Your task to perform on an android device: set the timer Image 0: 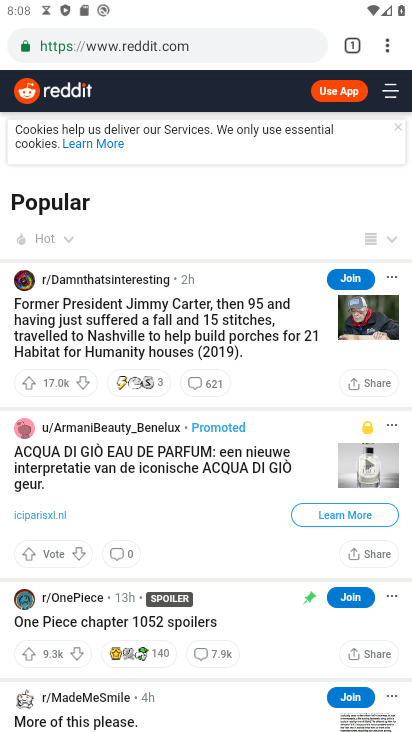
Step 0: press back button
Your task to perform on an android device: set the timer Image 1: 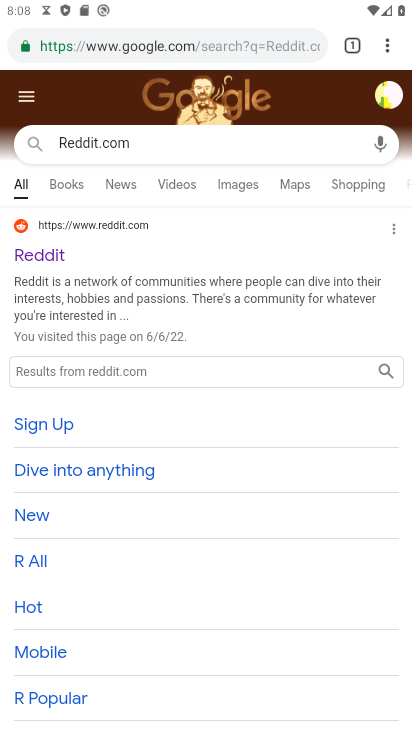
Step 1: press back button
Your task to perform on an android device: set the timer Image 2: 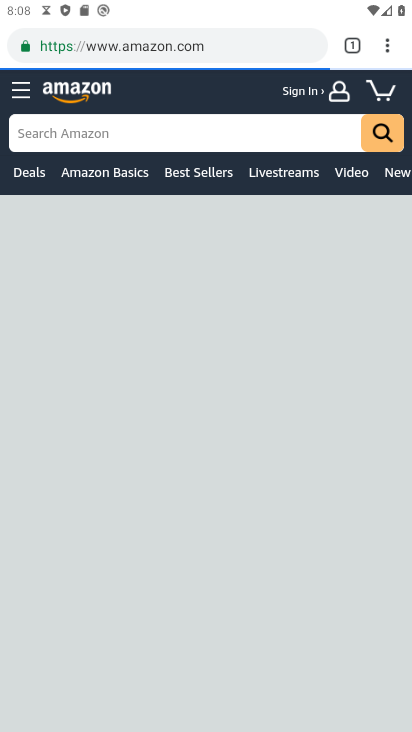
Step 2: press back button
Your task to perform on an android device: set the timer Image 3: 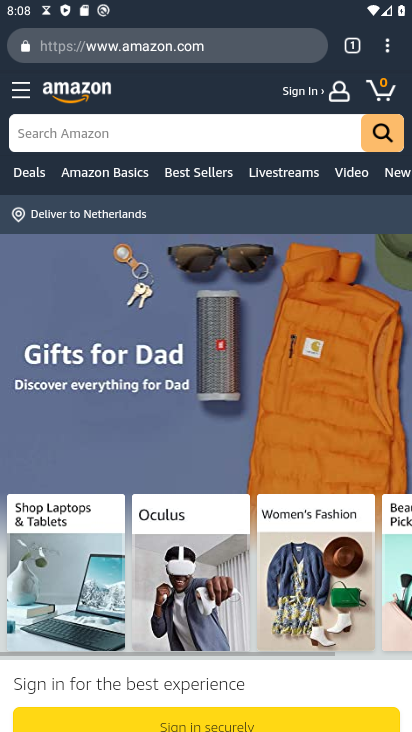
Step 3: press back button
Your task to perform on an android device: set the timer Image 4: 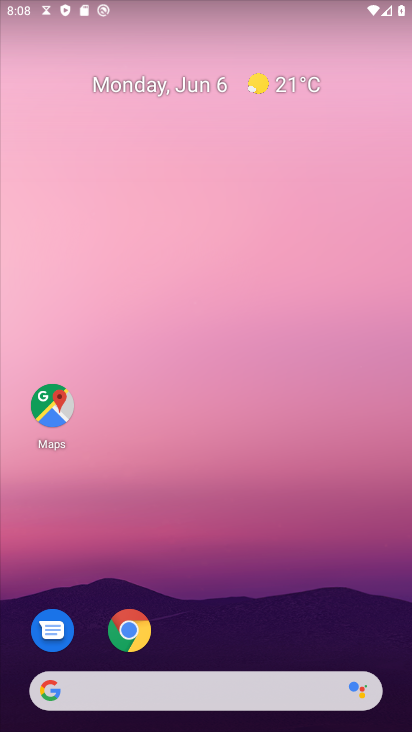
Step 4: drag from (220, 579) to (216, 56)
Your task to perform on an android device: set the timer Image 5: 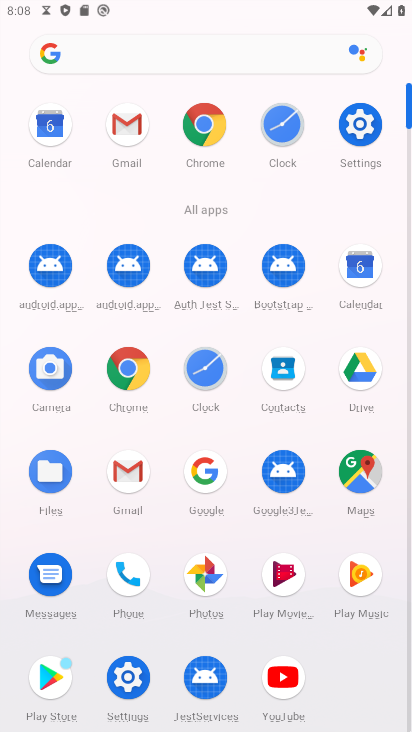
Step 5: click (206, 368)
Your task to perform on an android device: set the timer Image 6: 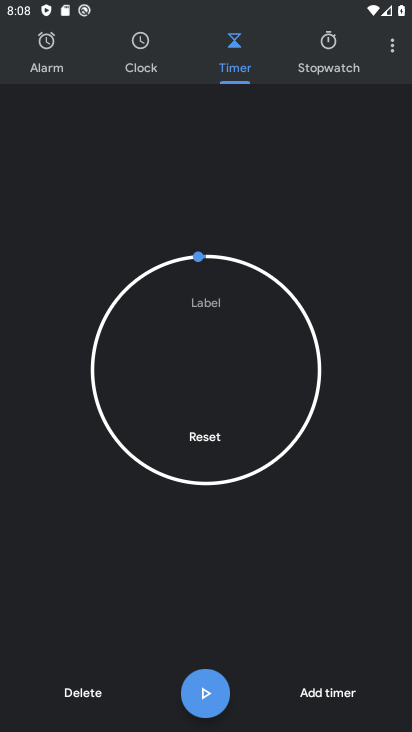
Step 6: click (91, 690)
Your task to perform on an android device: set the timer Image 7: 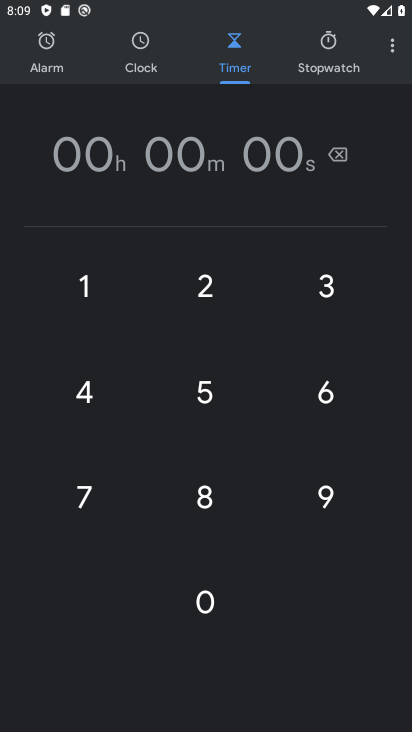
Step 7: type "123"
Your task to perform on an android device: set the timer Image 8: 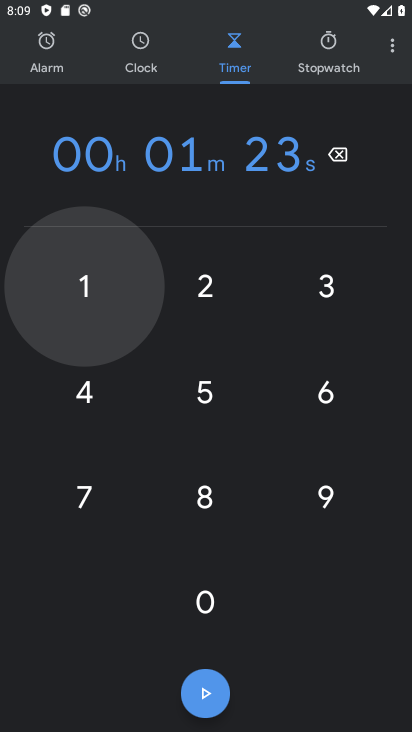
Step 8: click (204, 687)
Your task to perform on an android device: set the timer Image 9: 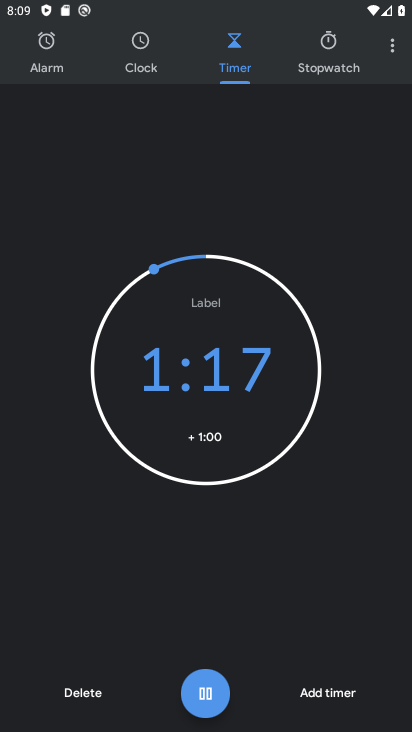
Step 9: click (210, 692)
Your task to perform on an android device: set the timer Image 10: 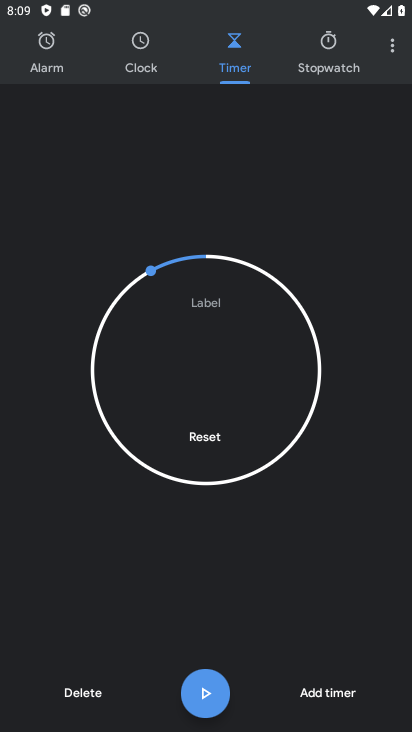
Step 10: task complete